Your task to perform on an android device: turn off smart reply in the gmail app Image 0: 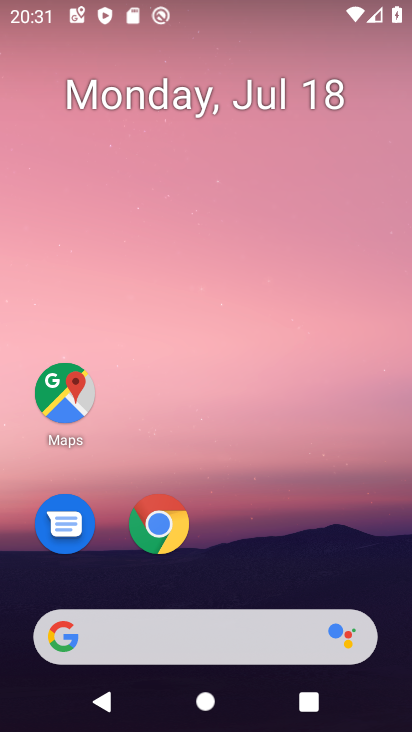
Step 0: drag from (288, 538) to (322, 63)
Your task to perform on an android device: turn off smart reply in the gmail app Image 1: 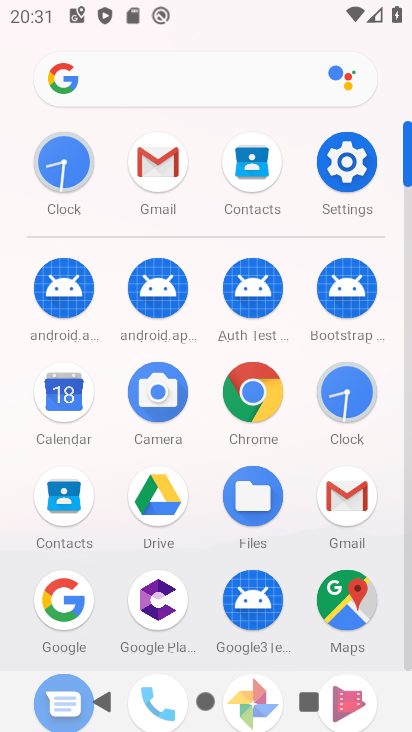
Step 1: click (168, 152)
Your task to perform on an android device: turn off smart reply in the gmail app Image 2: 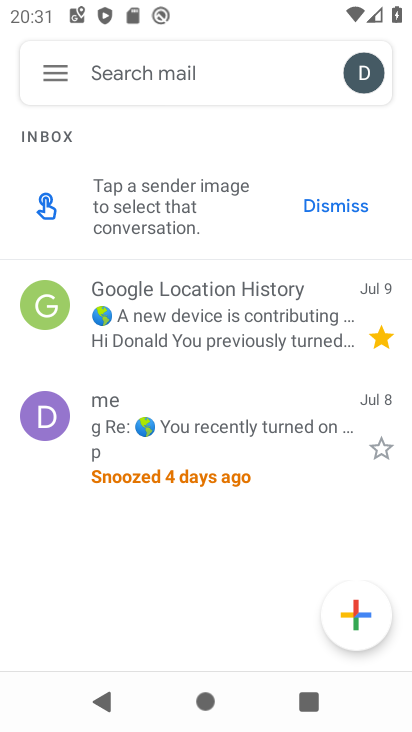
Step 2: click (60, 76)
Your task to perform on an android device: turn off smart reply in the gmail app Image 3: 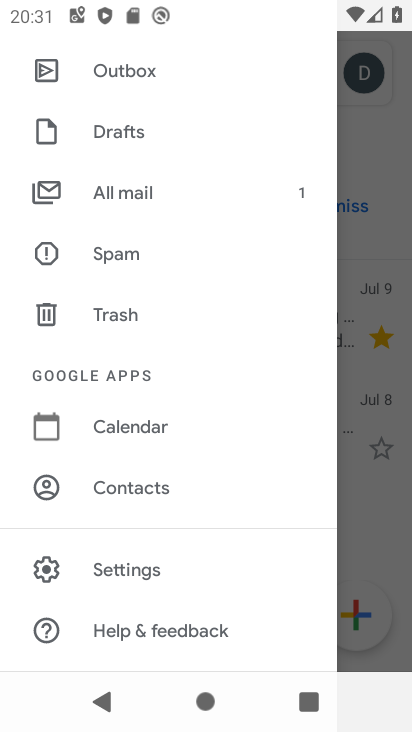
Step 3: click (147, 576)
Your task to perform on an android device: turn off smart reply in the gmail app Image 4: 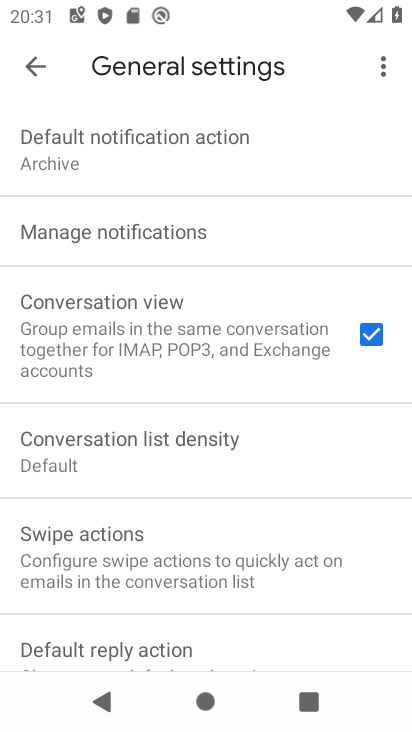
Step 4: drag from (224, 510) to (225, 254)
Your task to perform on an android device: turn off smart reply in the gmail app Image 5: 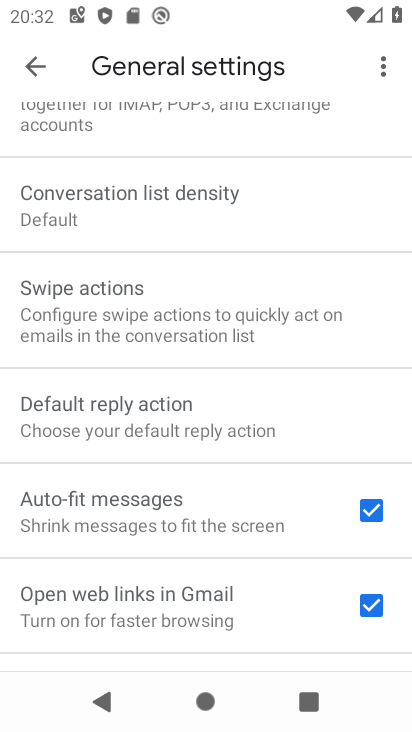
Step 5: drag from (248, 579) to (239, 228)
Your task to perform on an android device: turn off smart reply in the gmail app Image 6: 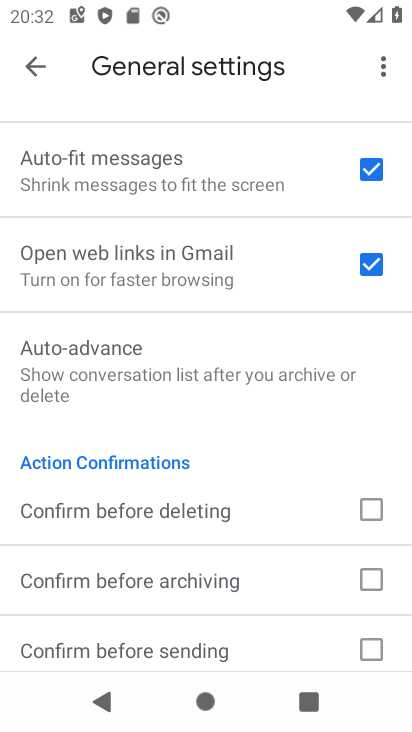
Step 6: drag from (239, 227) to (245, 619)
Your task to perform on an android device: turn off smart reply in the gmail app Image 7: 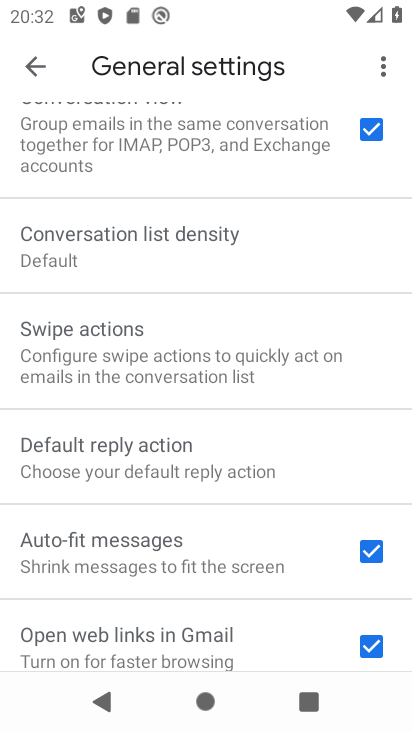
Step 7: drag from (199, 281) to (205, 601)
Your task to perform on an android device: turn off smart reply in the gmail app Image 8: 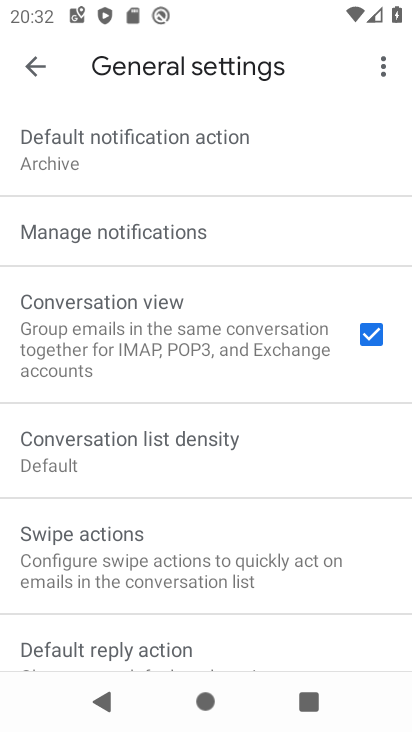
Step 8: click (38, 60)
Your task to perform on an android device: turn off smart reply in the gmail app Image 9: 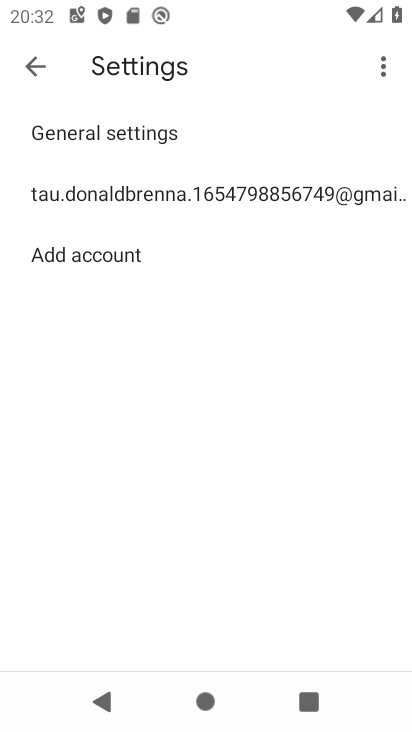
Step 9: click (155, 197)
Your task to perform on an android device: turn off smart reply in the gmail app Image 10: 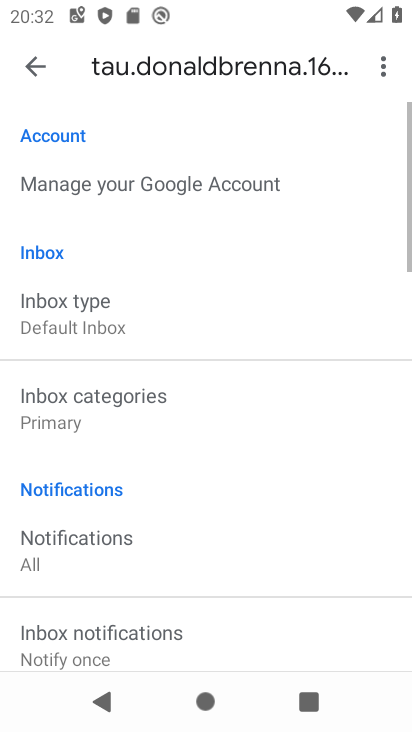
Step 10: task complete